Your task to perform on an android device: Check the news Image 0: 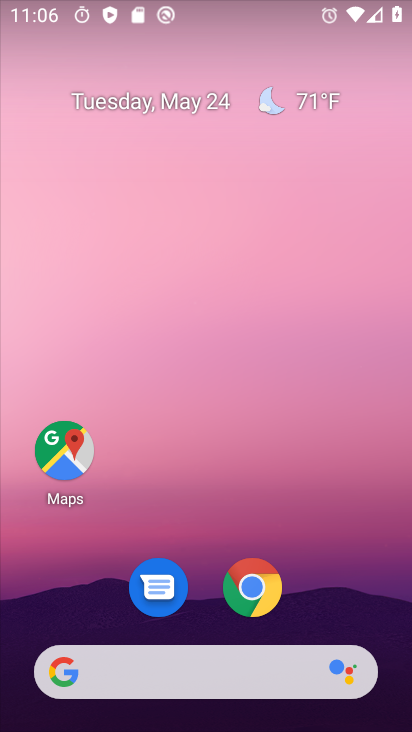
Step 0: drag from (242, 328) to (379, 418)
Your task to perform on an android device: Check the news Image 1: 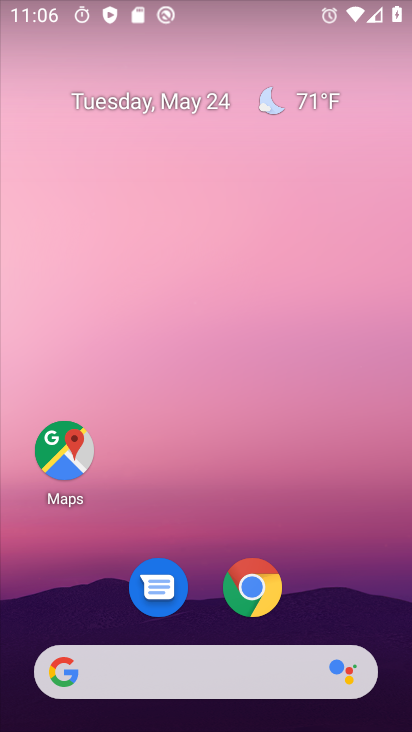
Step 1: task complete